Your task to perform on an android device: What's on my calendar today? Image 0: 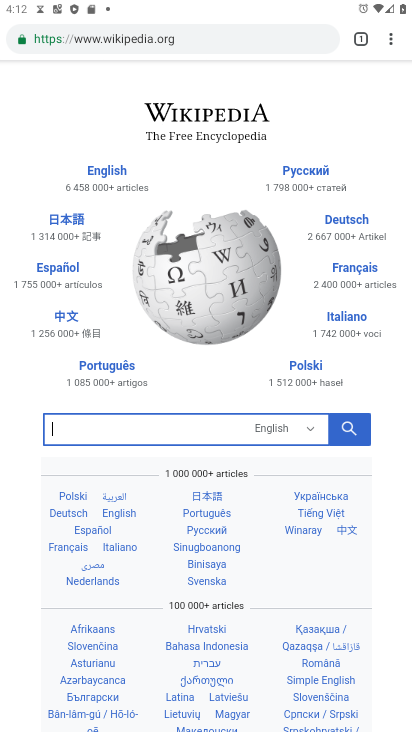
Step 0: press home button
Your task to perform on an android device: What's on my calendar today? Image 1: 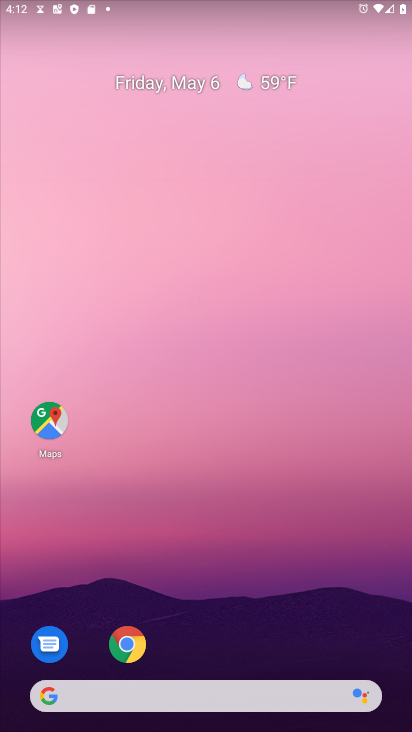
Step 1: drag from (264, 628) to (271, 15)
Your task to perform on an android device: What's on my calendar today? Image 2: 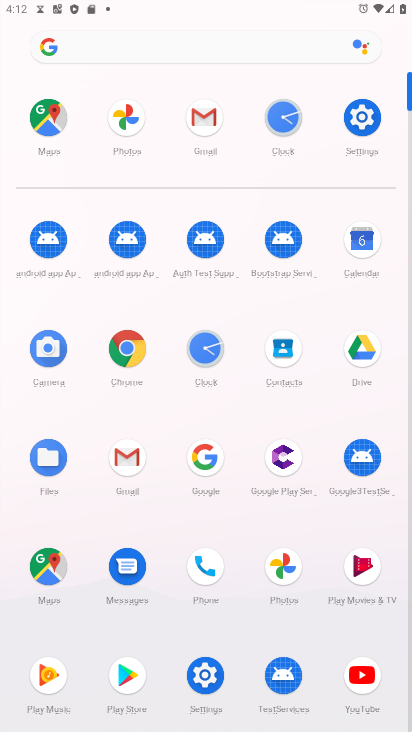
Step 2: click (367, 235)
Your task to perform on an android device: What's on my calendar today? Image 3: 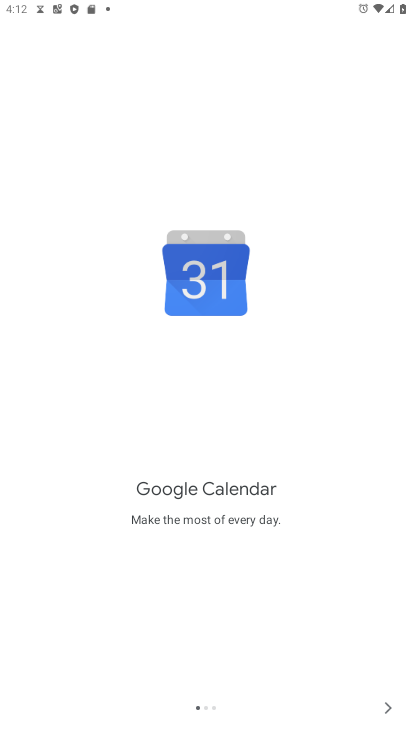
Step 3: click (389, 707)
Your task to perform on an android device: What's on my calendar today? Image 4: 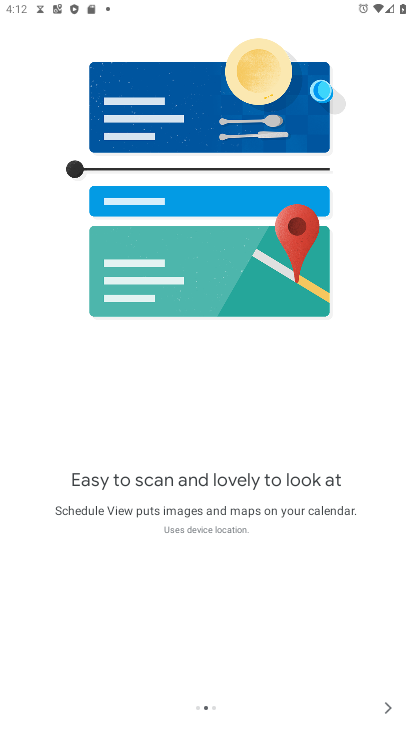
Step 4: click (389, 706)
Your task to perform on an android device: What's on my calendar today? Image 5: 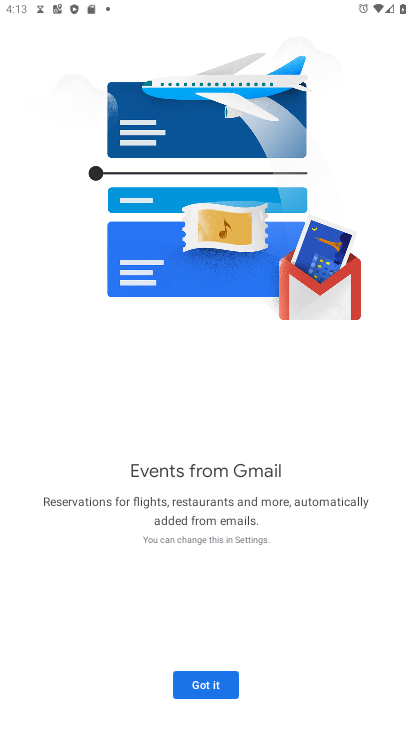
Step 5: click (184, 690)
Your task to perform on an android device: What's on my calendar today? Image 6: 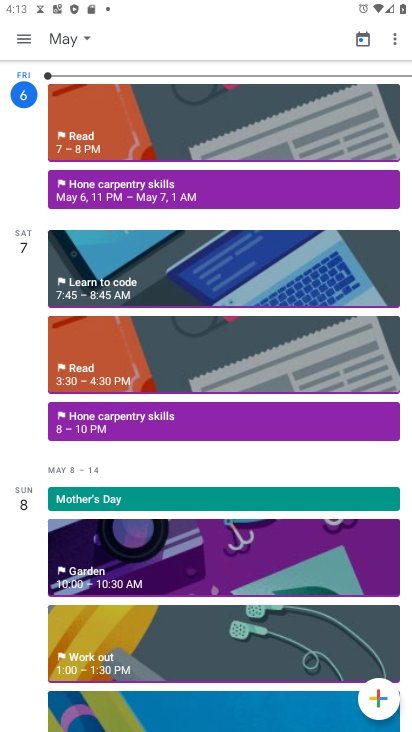
Step 6: click (187, 172)
Your task to perform on an android device: What's on my calendar today? Image 7: 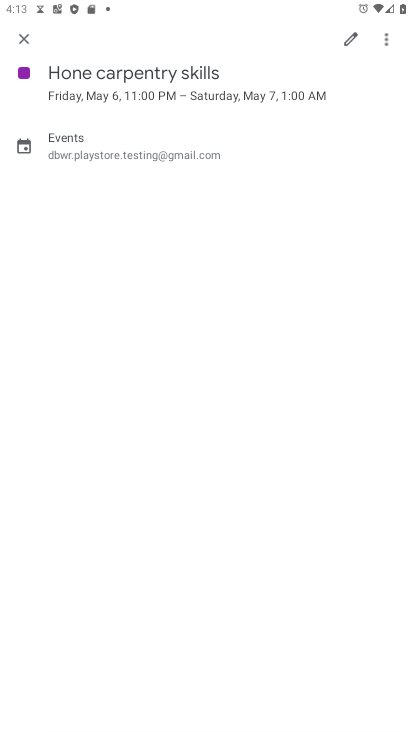
Step 7: task complete